Your task to perform on an android device: Open Google Maps Image 0: 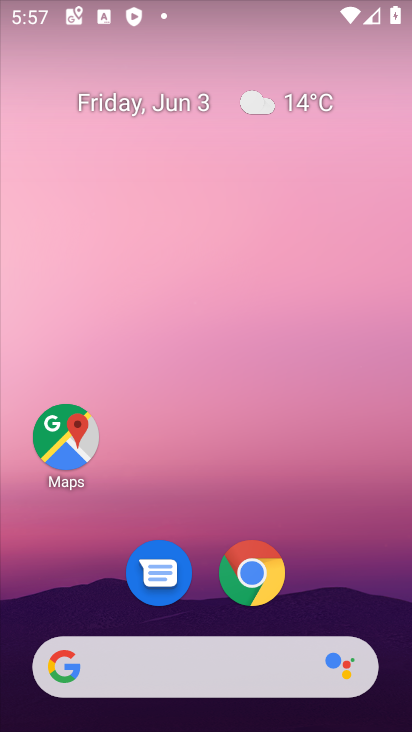
Step 0: drag from (249, 624) to (314, 35)
Your task to perform on an android device: Open Google Maps Image 1: 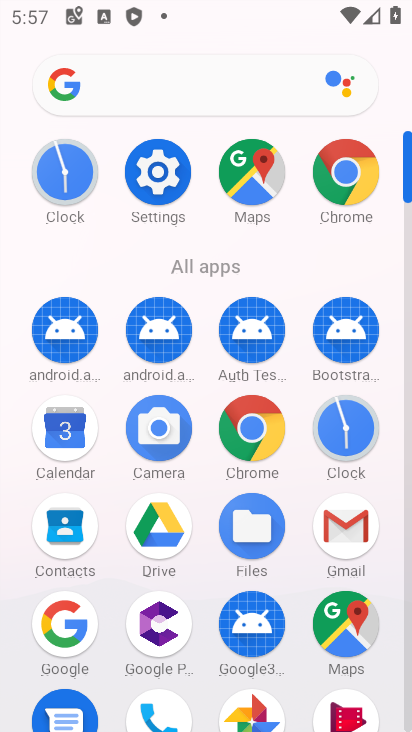
Step 1: click (348, 614)
Your task to perform on an android device: Open Google Maps Image 2: 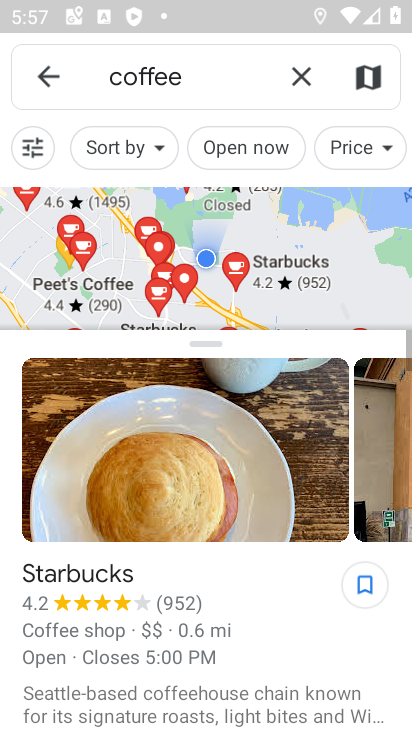
Step 2: task complete